Your task to perform on an android device: turn on wifi Image 0: 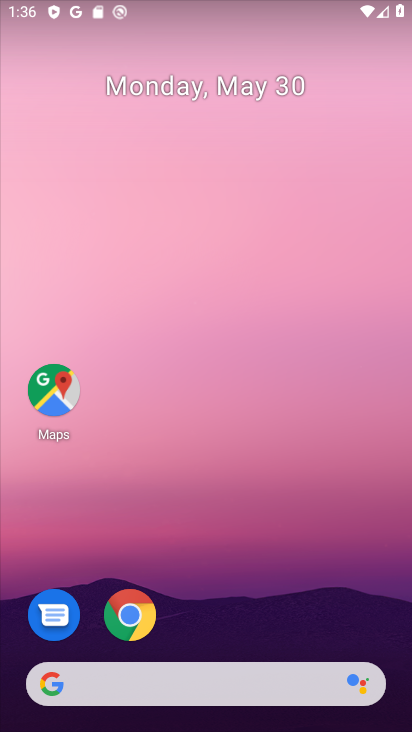
Step 0: drag from (313, 5) to (305, 547)
Your task to perform on an android device: turn on wifi Image 1: 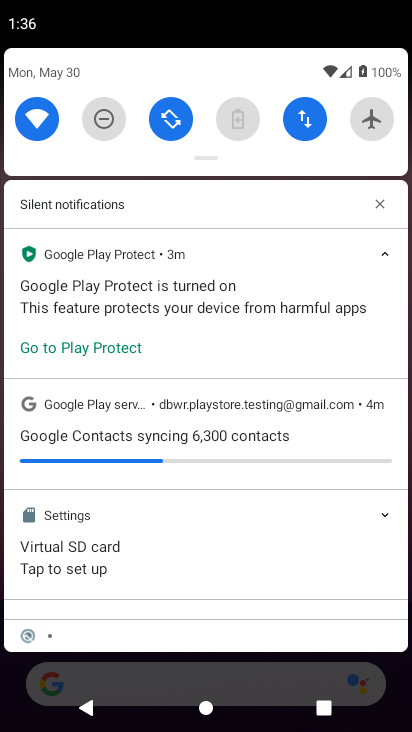
Step 1: task complete